Your task to perform on an android device: open sync settings in chrome Image 0: 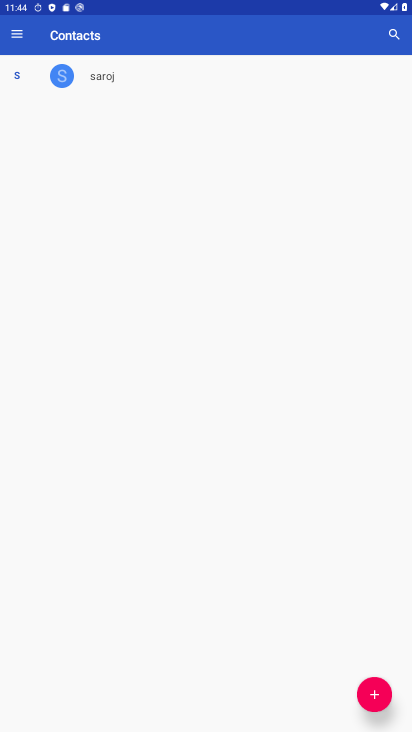
Step 0: press home button
Your task to perform on an android device: open sync settings in chrome Image 1: 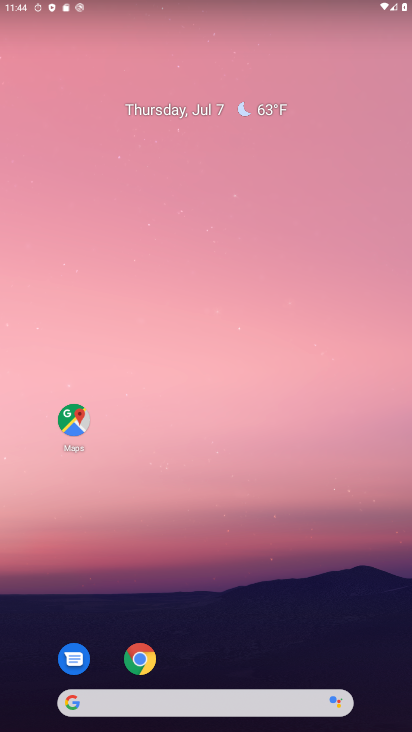
Step 1: click (156, 656)
Your task to perform on an android device: open sync settings in chrome Image 2: 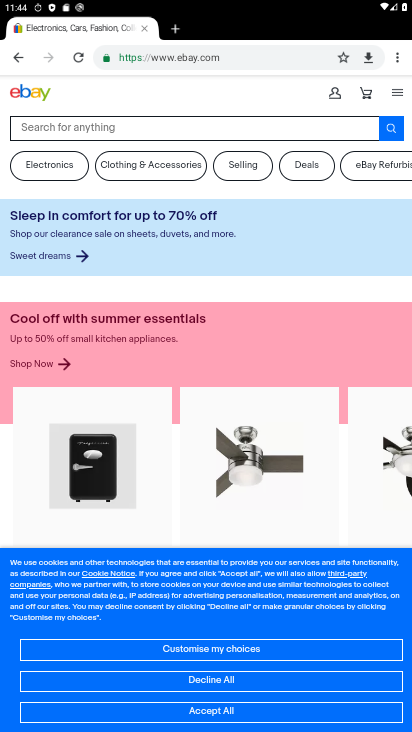
Step 2: click (399, 55)
Your task to perform on an android device: open sync settings in chrome Image 3: 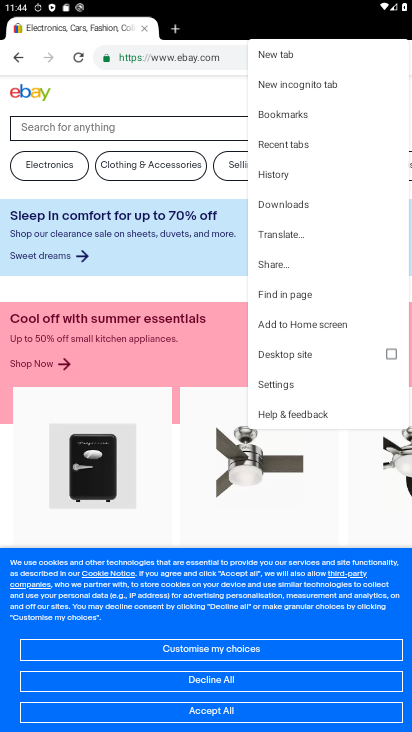
Step 3: click (260, 380)
Your task to perform on an android device: open sync settings in chrome Image 4: 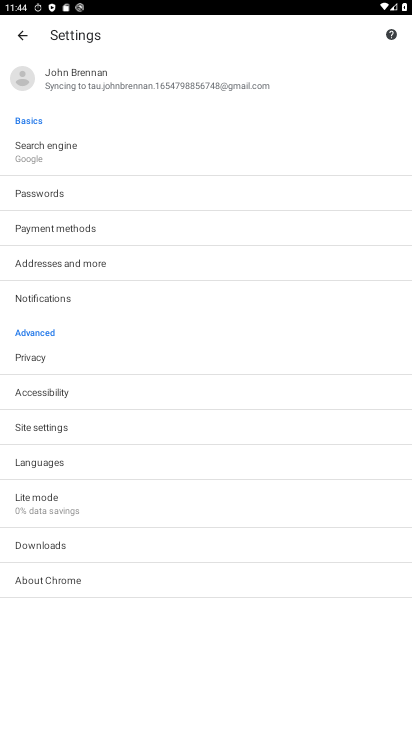
Step 4: click (177, 69)
Your task to perform on an android device: open sync settings in chrome Image 5: 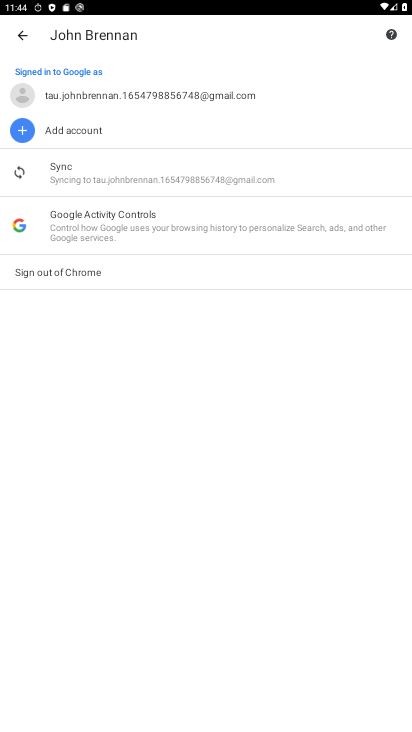
Step 5: click (222, 184)
Your task to perform on an android device: open sync settings in chrome Image 6: 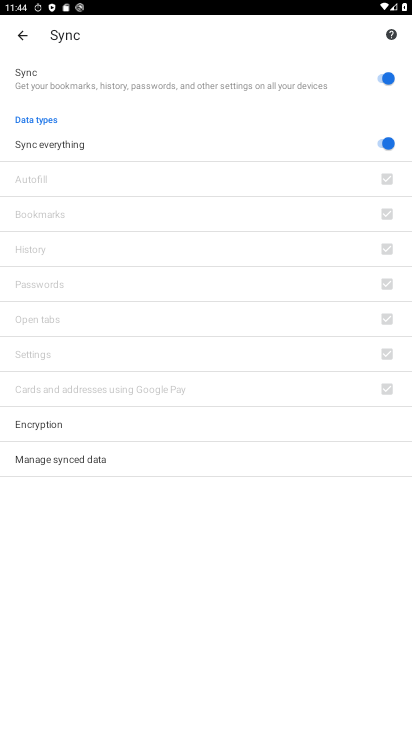
Step 6: task complete